Your task to perform on an android device: allow notifications from all sites in the chrome app Image 0: 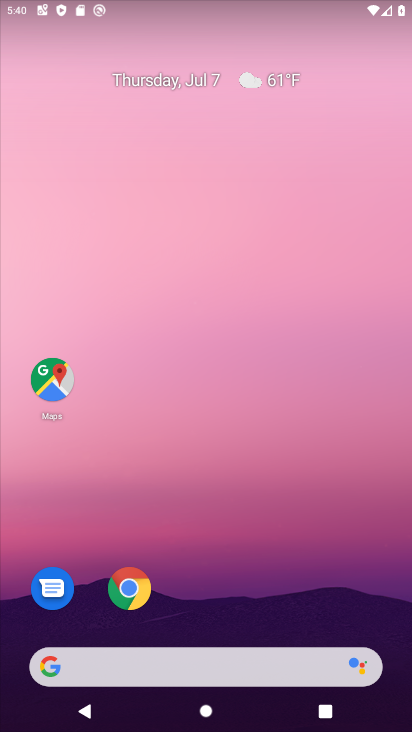
Step 0: click (121, 581)
Your task to perform on an android device: allow notifications from all sites in the chrome app Image 1: 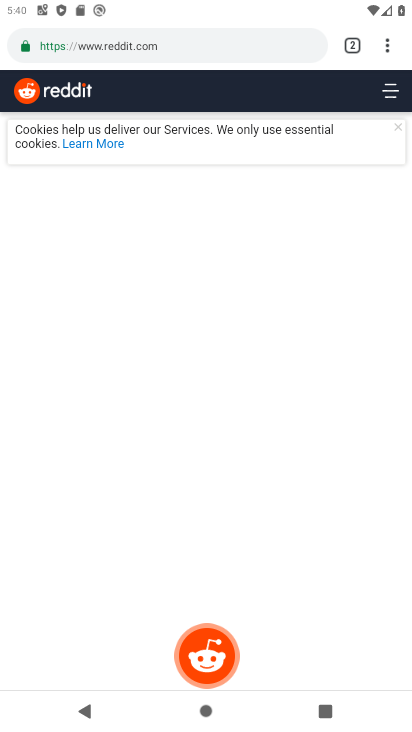
Step 1: drag from (389, 39) to (235, 543)
Your task to perform on an android device: allow notifications from all sites in the chrome app Image 2: 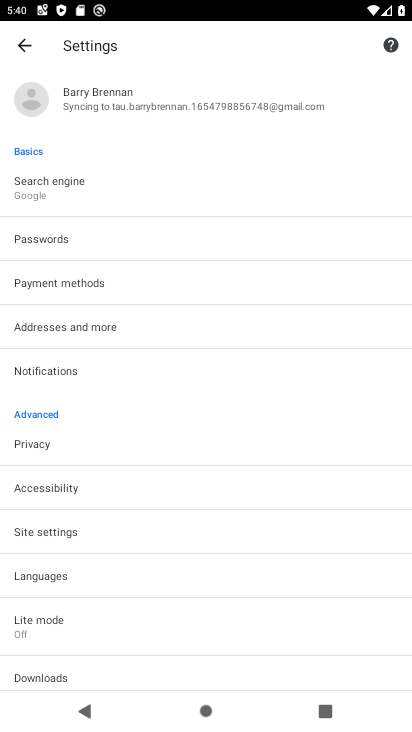
Step 2: click (54, 379)
Your task to perform on an android device: allow notifications from all sites in the chrome app Image 3: 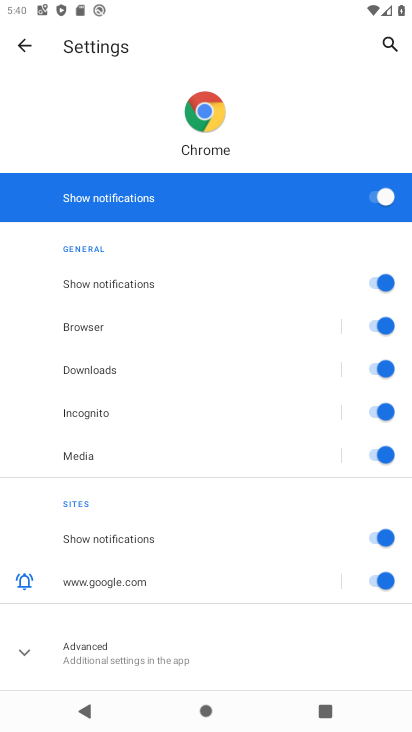
Step 3: task complete